Your task to perform on an android device: turn off translation in the chrome app Image 0: 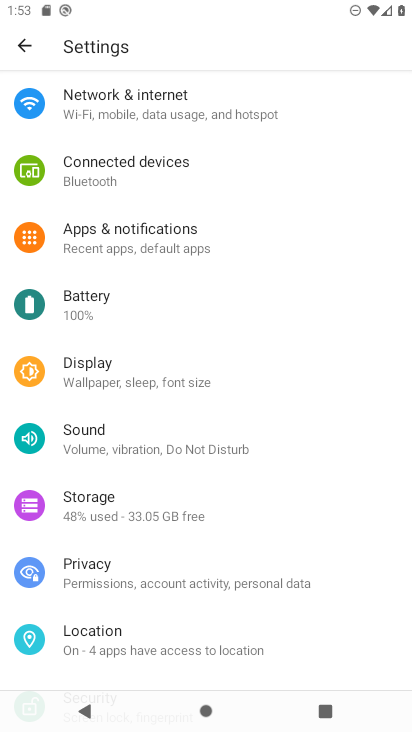
Step 0: press home button
Your task to perform on an android device: turn off translation in the chrome app Image 1: 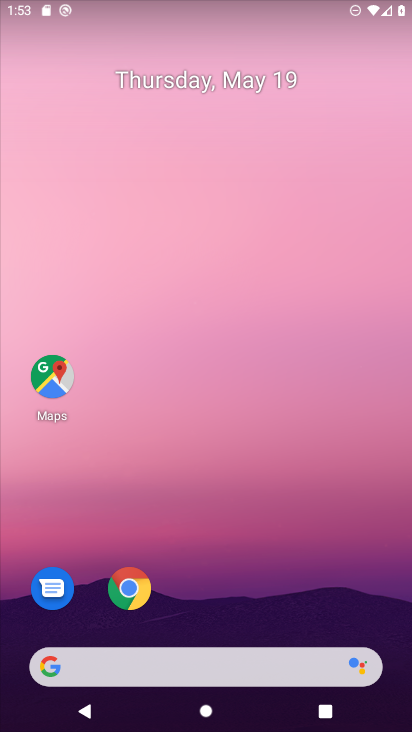
Step 1: click (135, 595)
Your task to perform on an android device: turn off translation in the chrome app Image 2: 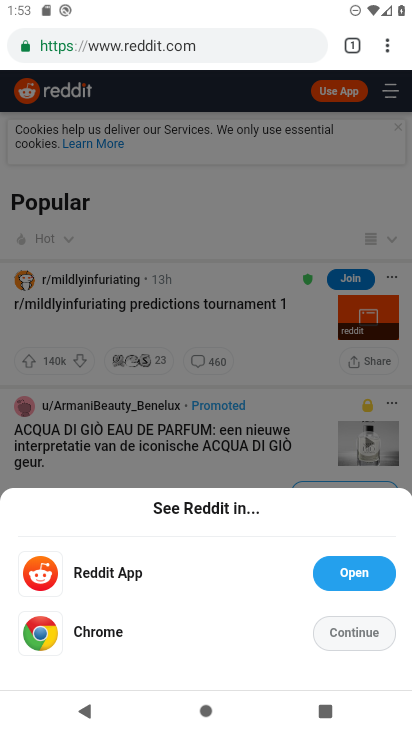
Step 2: drag from (387, 50) to (257, 547)
Your task to perform on an android device: turn off translation in the chrome app Image 3: 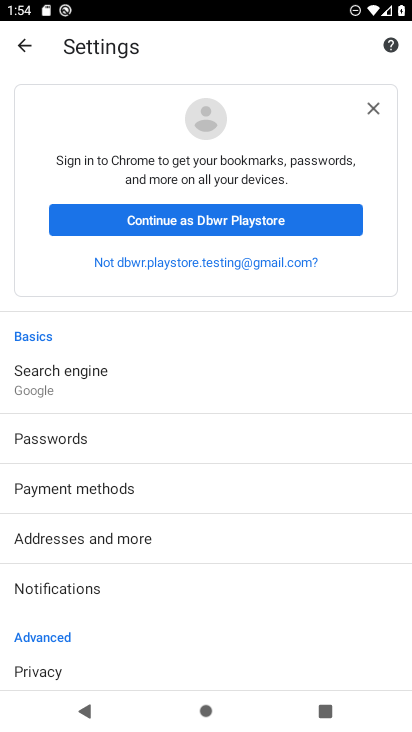
Step 3: drag from (187, 447) to (200, 330)
Your task to perform on an android device: turn off translation in the chrome app Image 4: 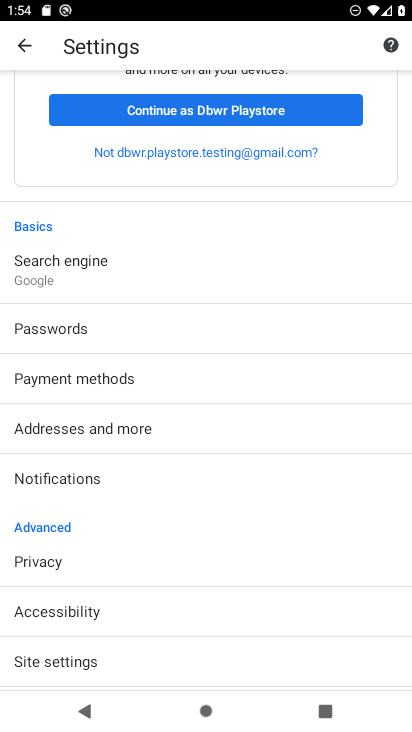
Step 4: drag from (153, 568) to (163, 337)
Your task to perform on an android device: turn off translation in the chrome app Image 5: 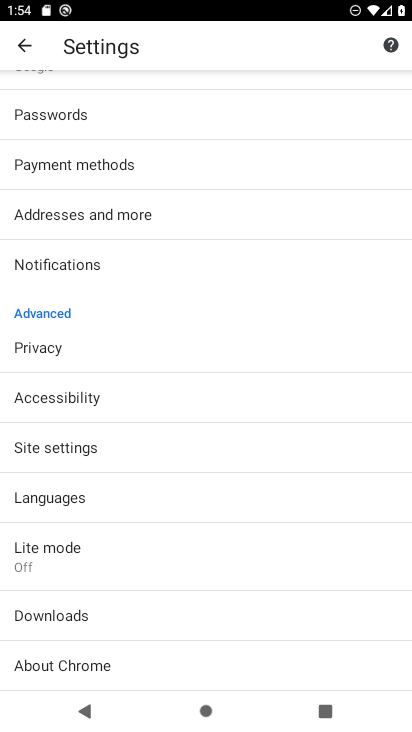
Step 5: click (47, 504)
Your task to perform on an android device: turn off translation in the chrome app Image 6: 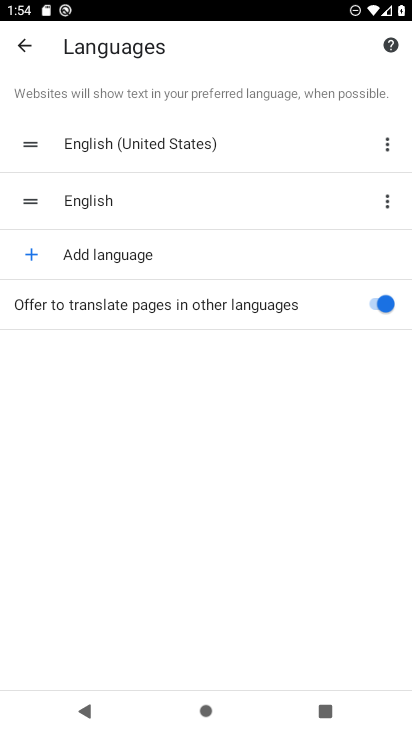
Step 6: click (386, 307)
Your task to perform on an android device: turn off translation in the chrome app Image 7: 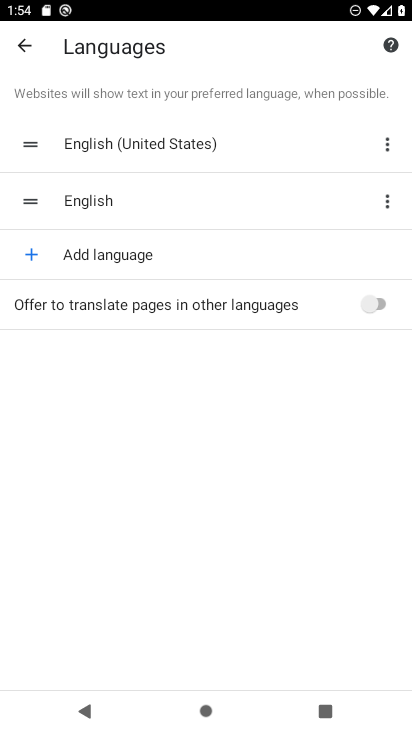
Step 7: task complete